Your task to perform on an android device: Open settings Image 0: 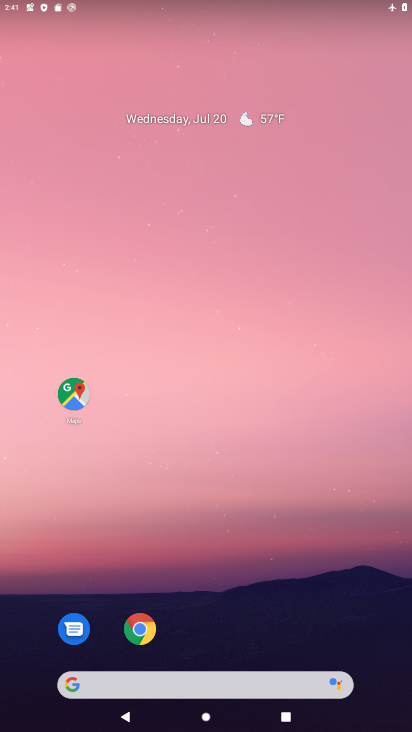
Step 0: drag from (261, 610) to (259, 193)
Your task to perform on an android device: Open settings Image 1: 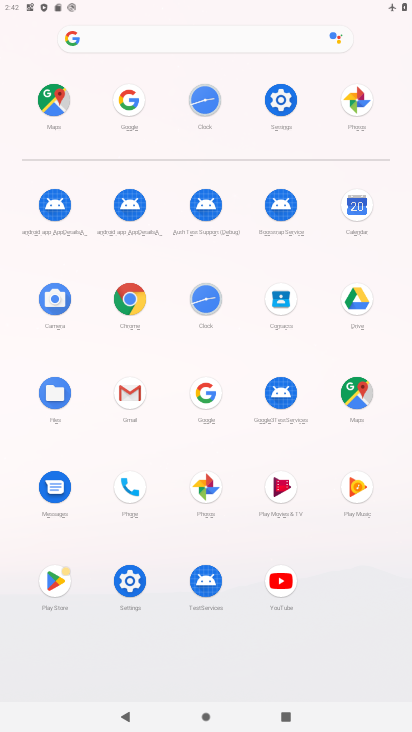
Step 1: click (288, 100)
Your task to perform on an android device: Open settings Image 2: 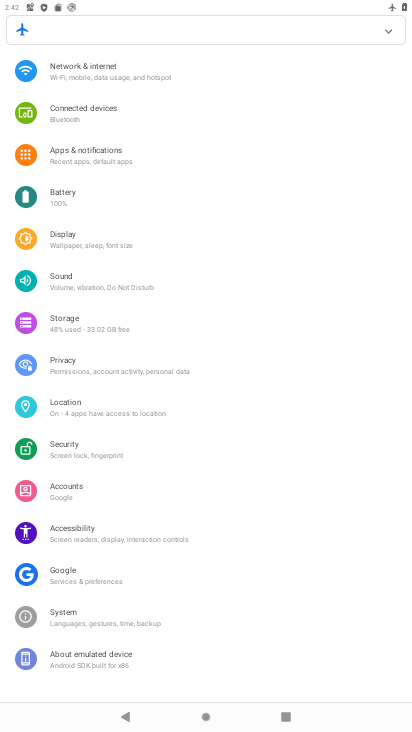
Step 2: task complete